Your task to perform on an android device: Search for Mexican restaurants on Maps Image 0: 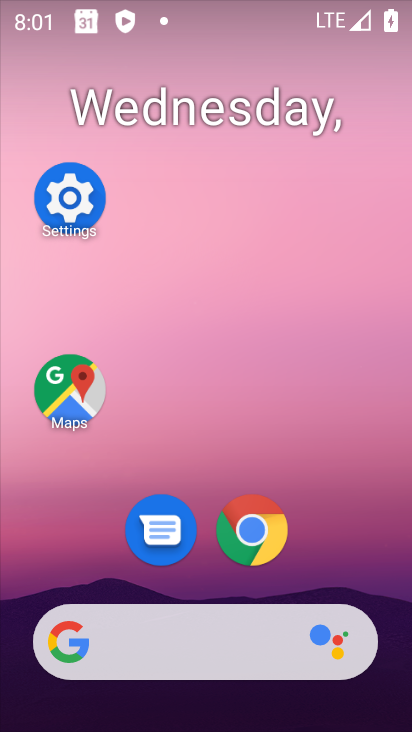
Step 0: click (85, 380)
Your task to perform on an android device: Search for Mexican restaurants on Maps Image 1: 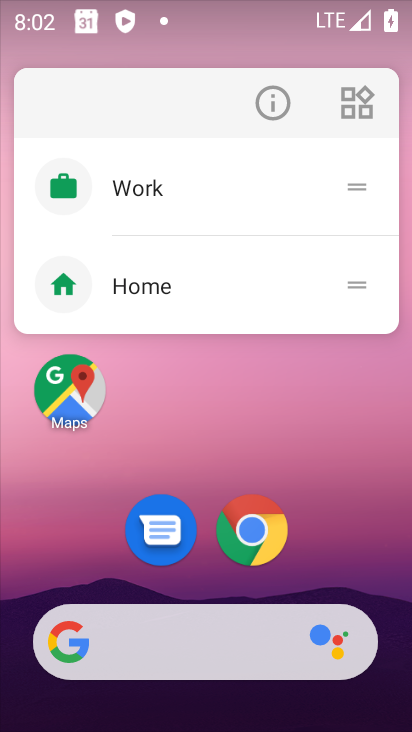
Step 1: click (67, 393)
Your task to perform on an android device: Search for Mexican restaurants on Maps Image 2: 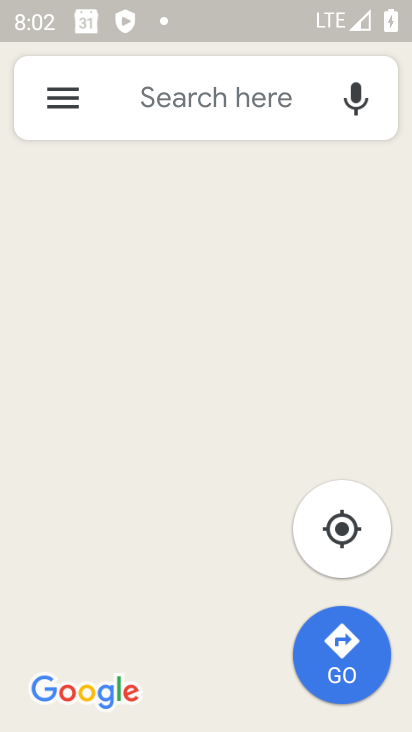
Step 2: click (249, 107)
Your task to perform on an android device: Search for Mexican restaurants on Maps Image 3: 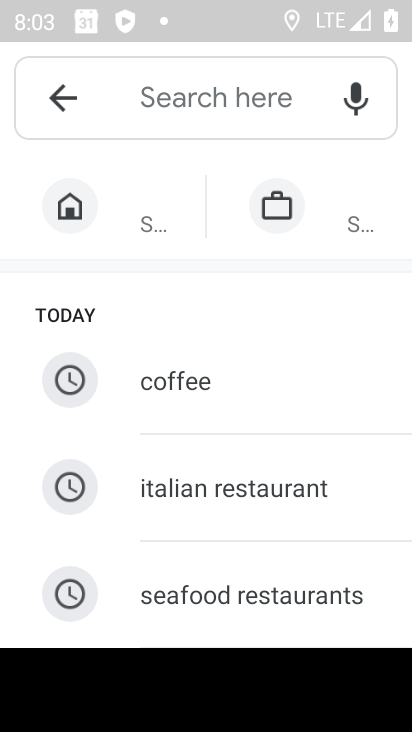
Step 3: type "mexican restaurants"
Your task to perform on an android device: Search for Mexican restaurants on Maps Image 4: 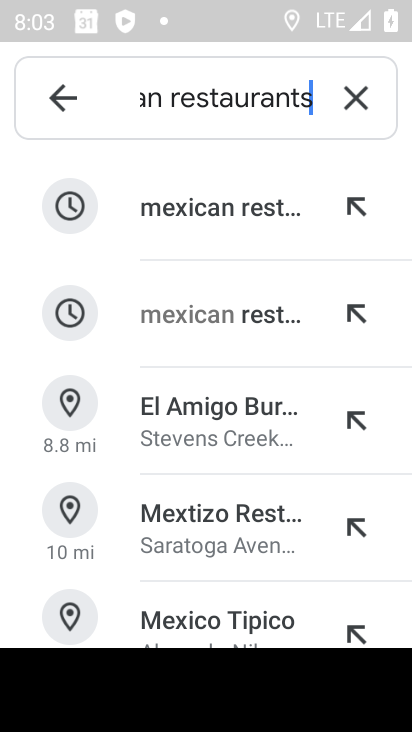
Step 4: click (226, 222)
Your task to perform on an android device: Search for Mexican restaurants on Maps Image 5: 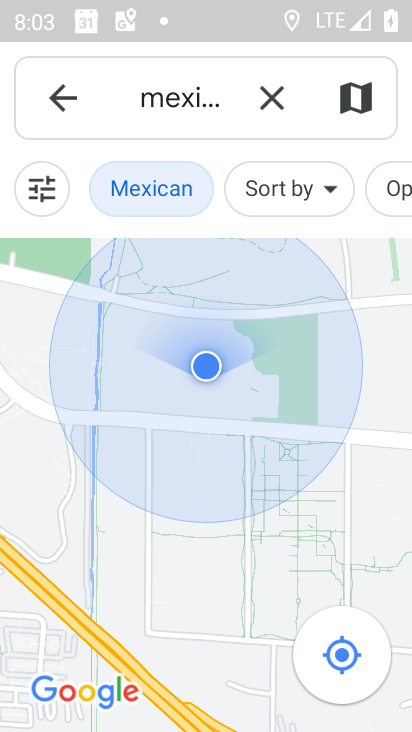
Step 5: task complete